Your task to perform on an android device: Open network settings Image 0: 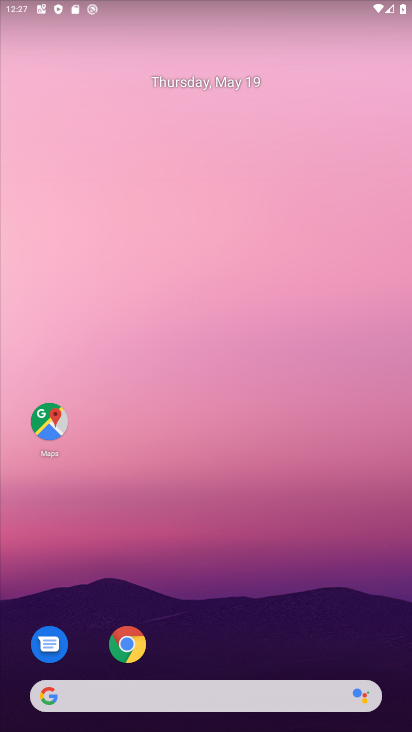
Step 0: drag from (262, 591) to (288, 182)
Your task to perform on an android device: Open network settings Image 1: 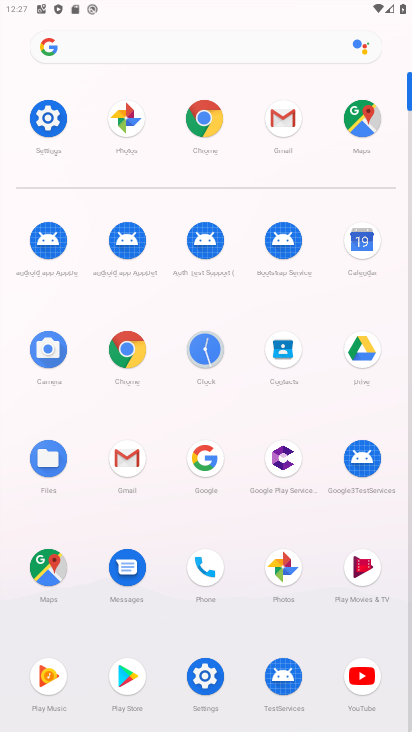
Step 1: click (224, 664)
Your task to perform on an android device: Open network settings Image 2: 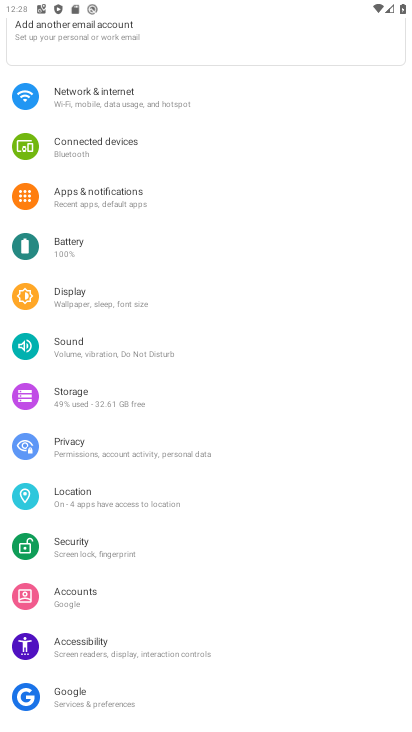
Step 2: click (141, 92)
Your task to perform on an android device: Open network settings Image 3: 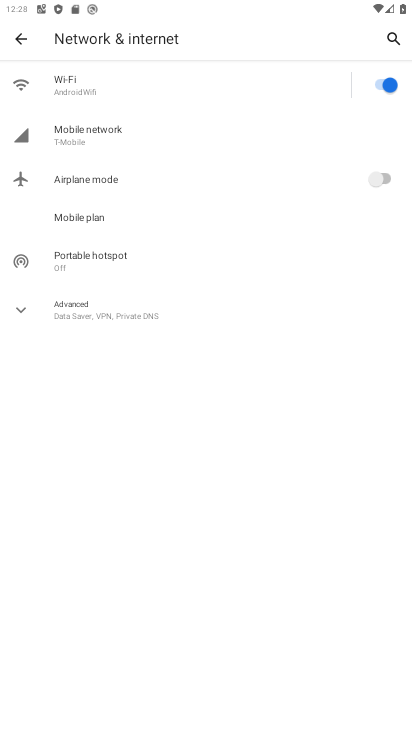
Step 3: click (158, 139)
Your task to perform on an android device: Open network settings Image 4: 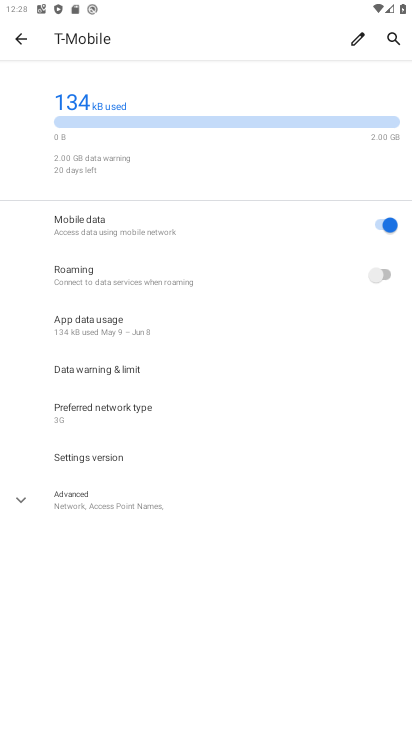
Step 4: task complete